Your task to perform on an android device: Do I have any events today? Image 0: 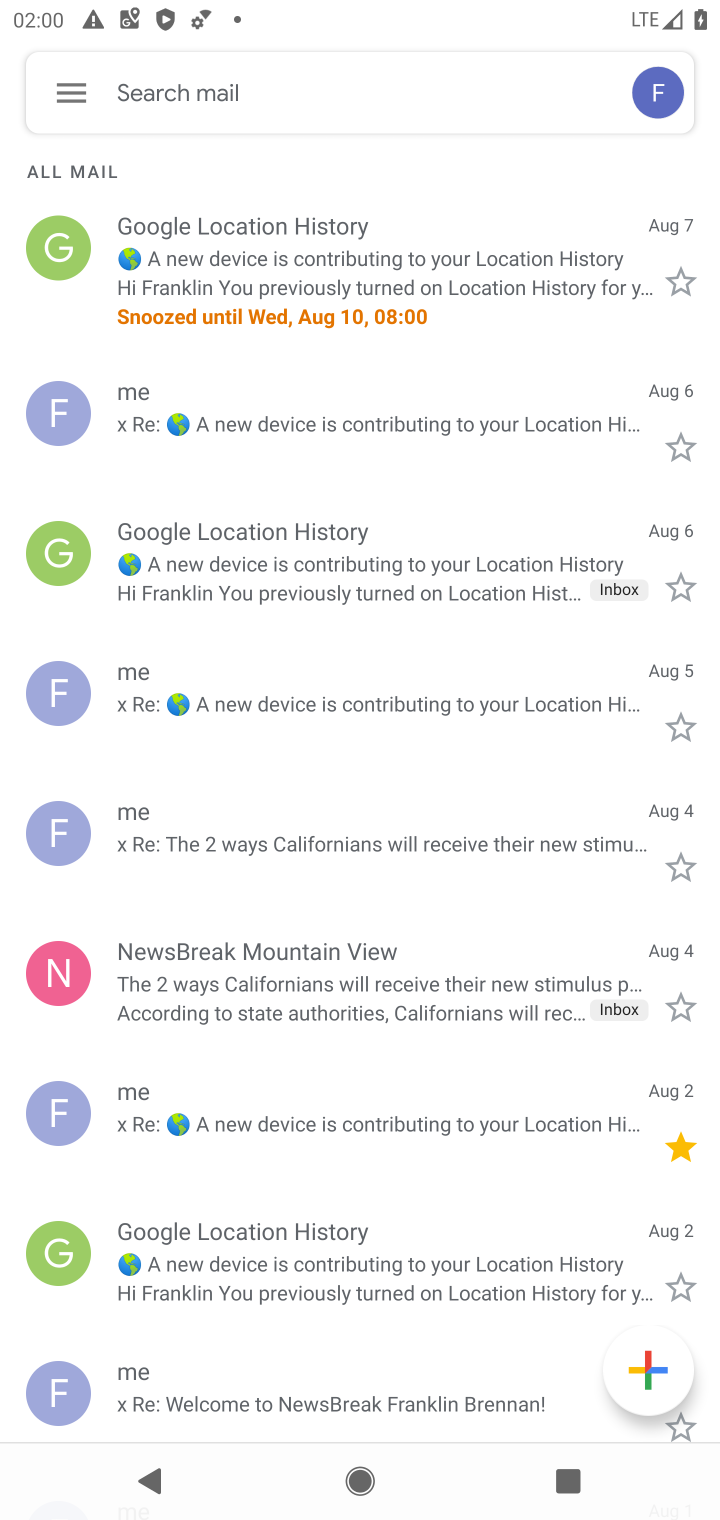
Step 0: press back button
Your task to perform on an android device: Do I have any events today? Image 1: 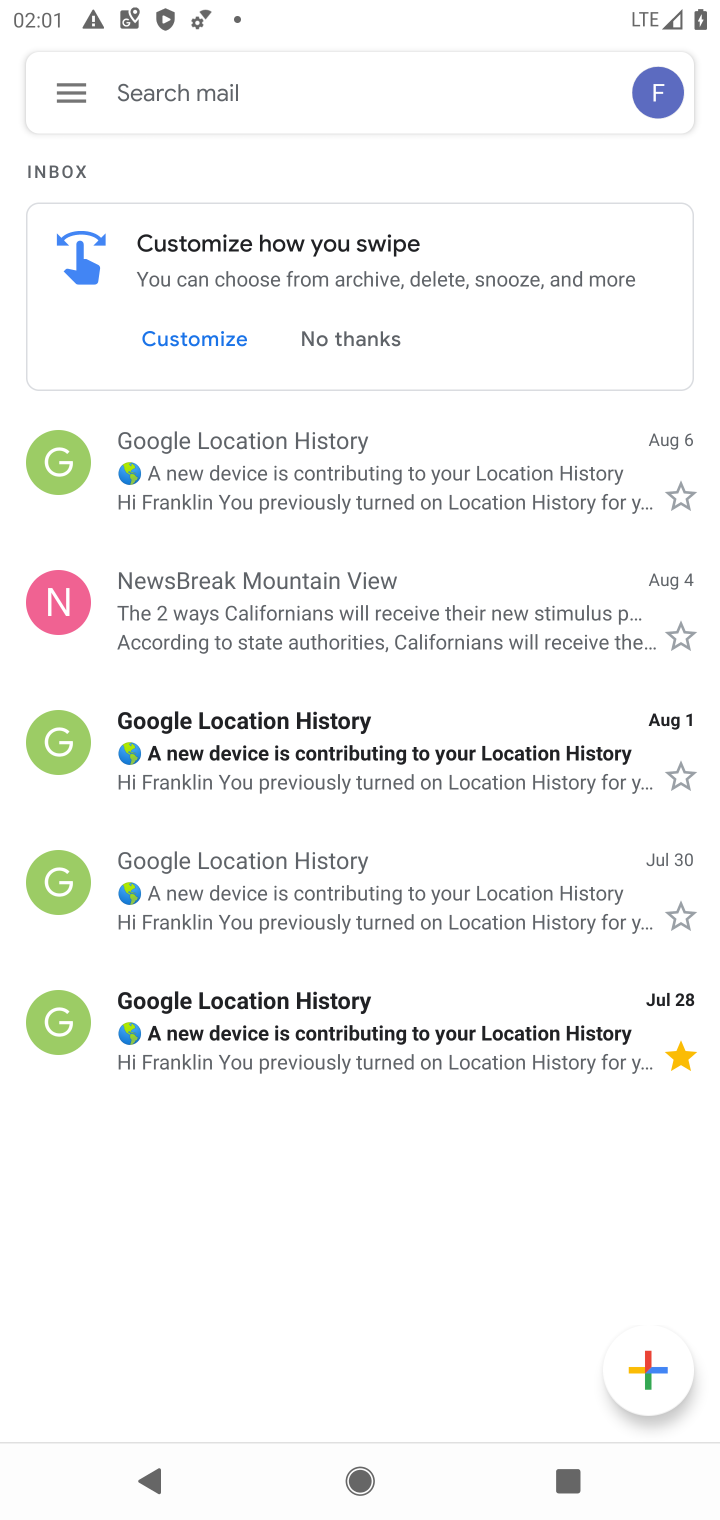
Step 1: press home button
Your task to perform on an android device: Do I have any events today? Image 2: 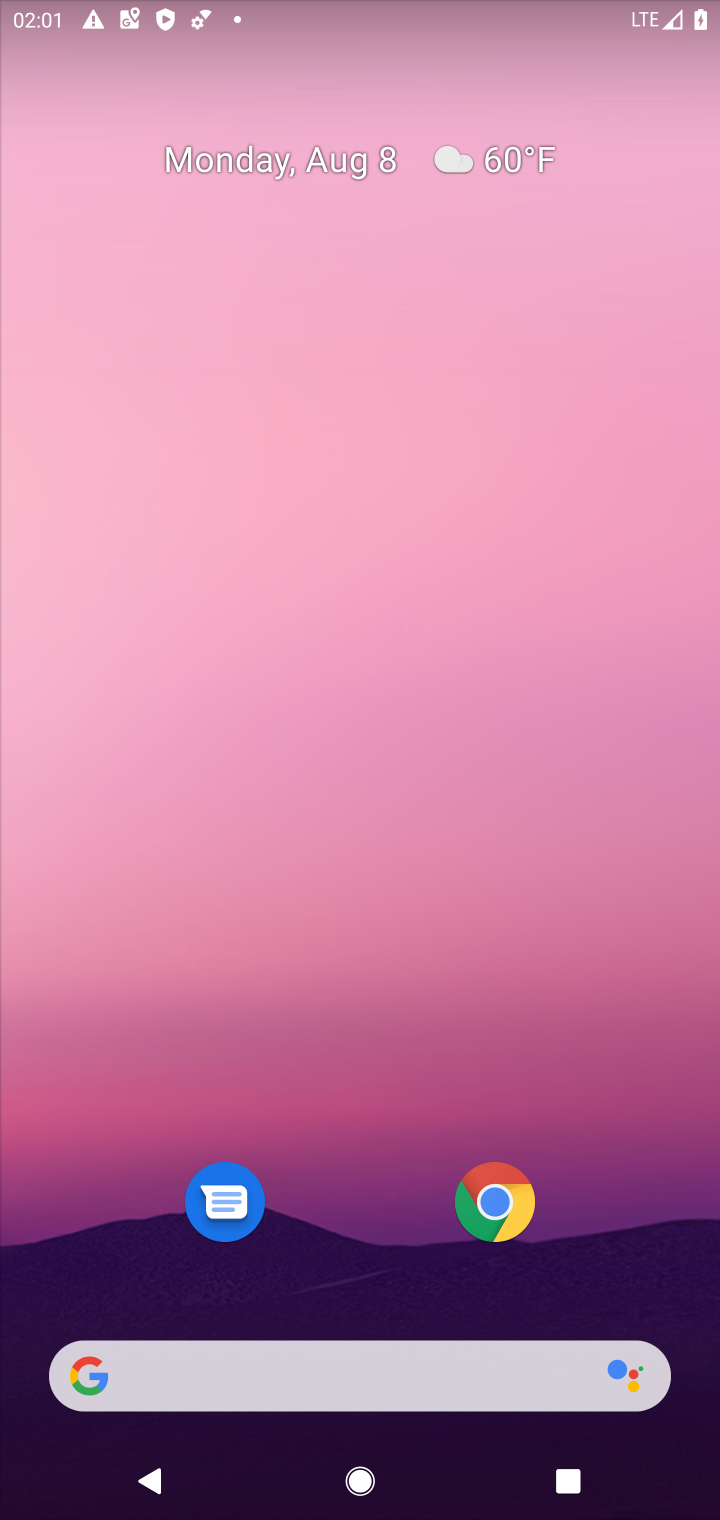
Step 2: drag from (360, 1202) to (322, 5)
Your task to perform on an android device: Do I have any events today? Image 3: 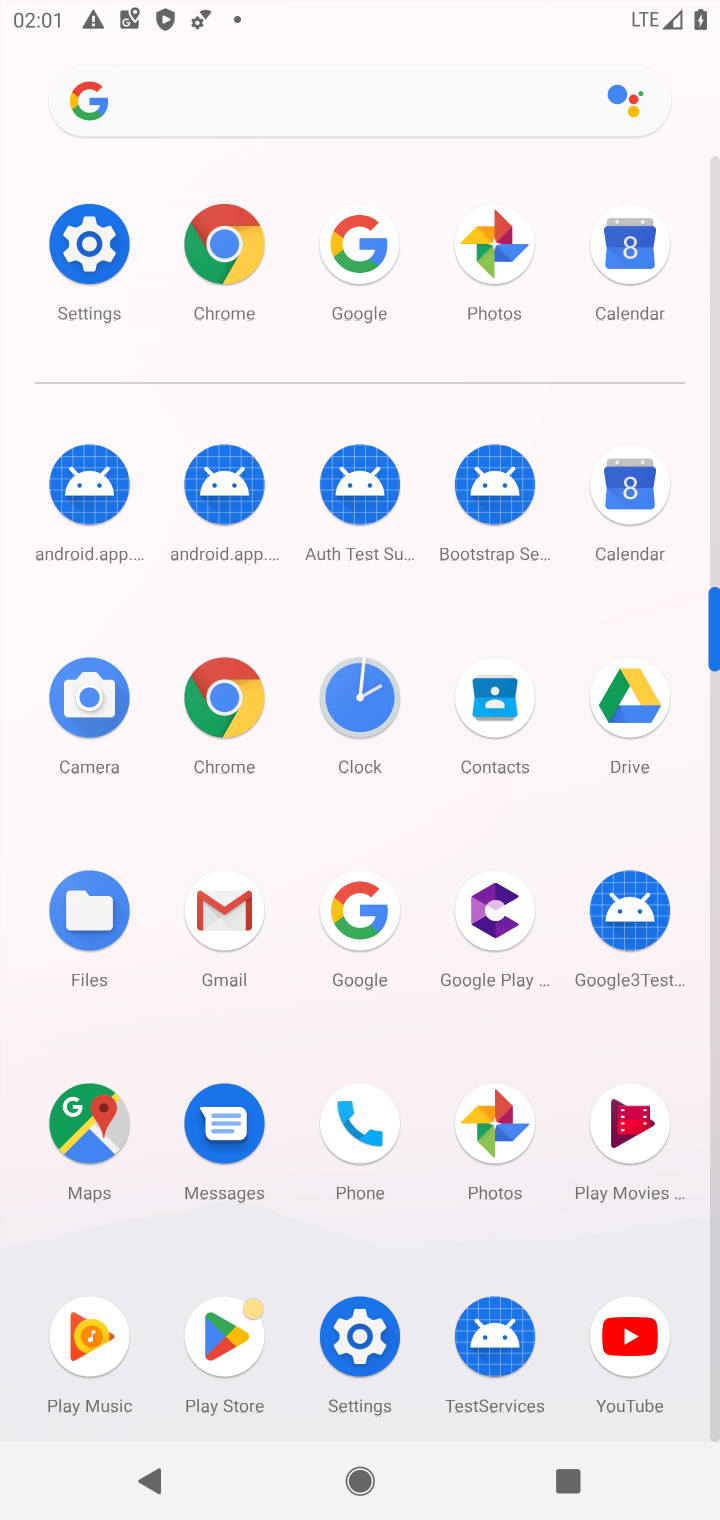
Step 3: drag from (416, 1056) to (392, 410)
Your task to perform on an android device: Do I have any events today? Image 4: 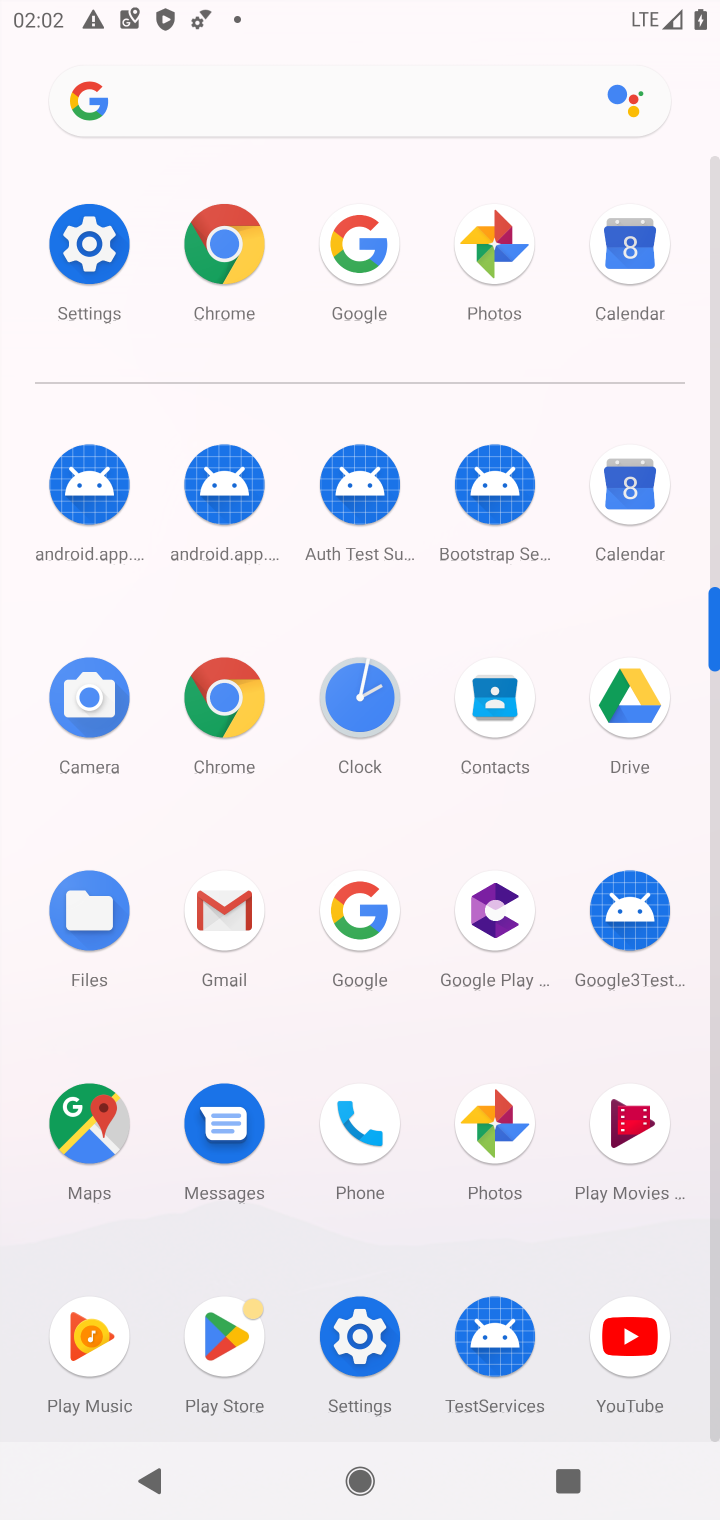
Step 4: click (641, 489)
Your task to perform on an android device: Do I have any events today? Image 5: 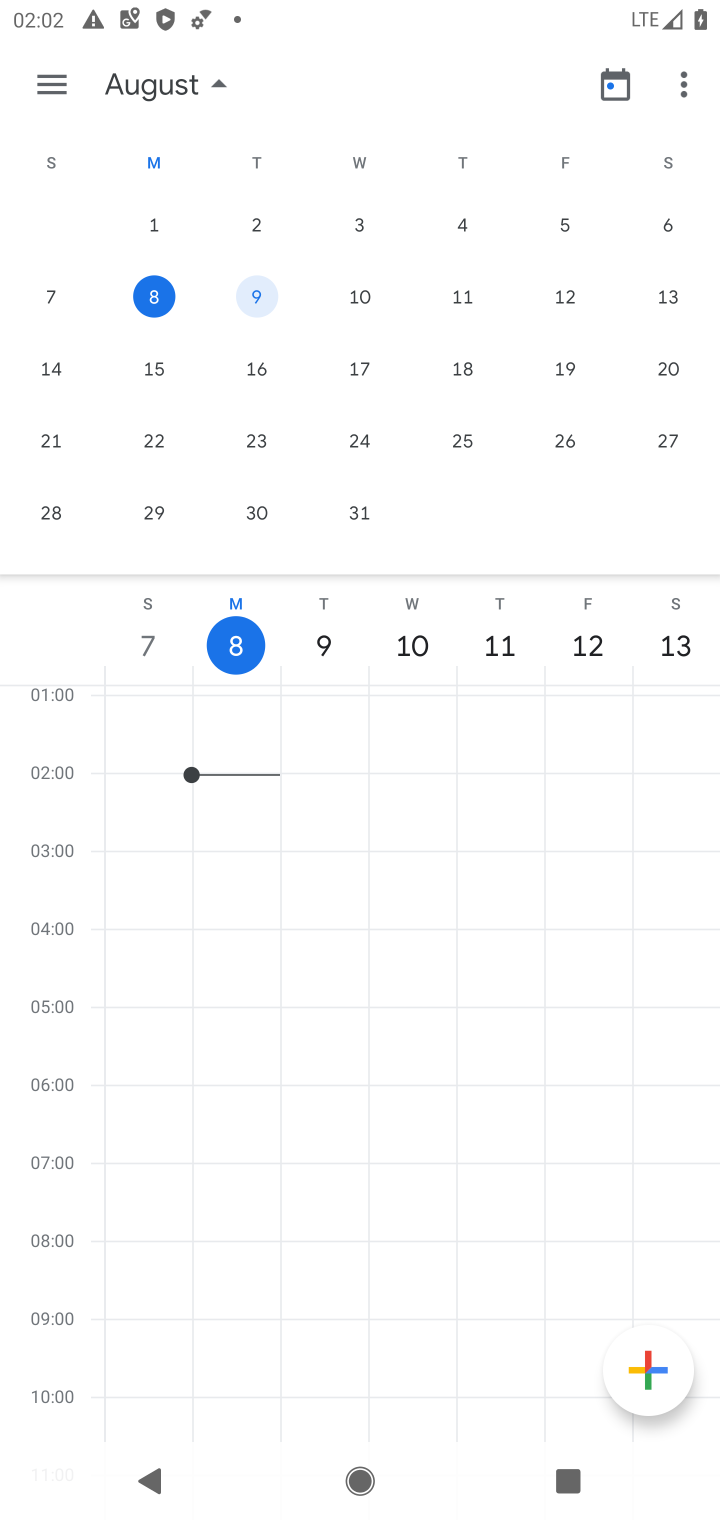
Step 5: task complete